Your task to perform on an android device: Go to internet settings Image 0: 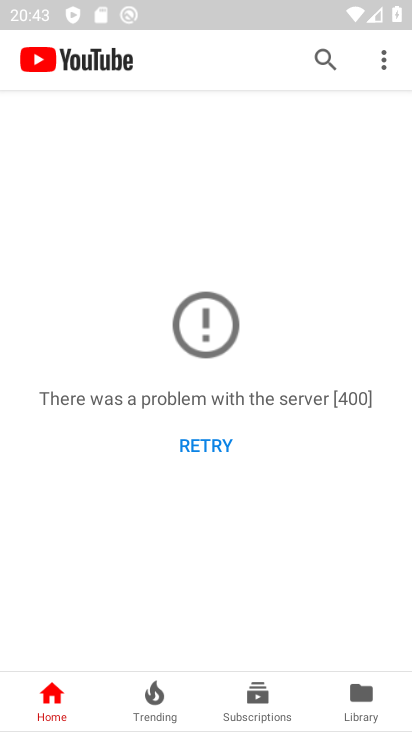
Step 0: press back button
Your task to perform on an android device: Go to internet settings Image 1: 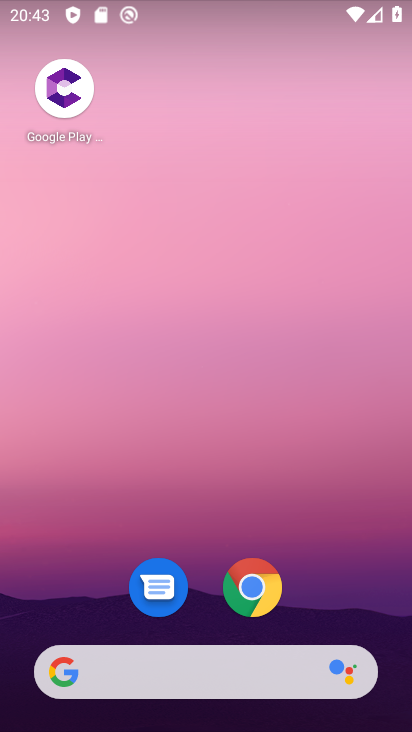
Step 1: drag from (306, 577) to (195, 1)
Your task to perform on an android device: Go to internet settings Image 2: 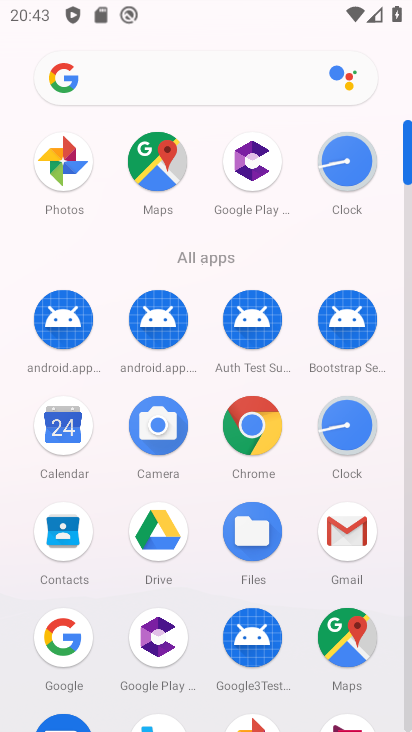
Step 2: drag from (10, 511) to (9, 200)
Your task to perform on an android device: Go to internet settings Image 3: 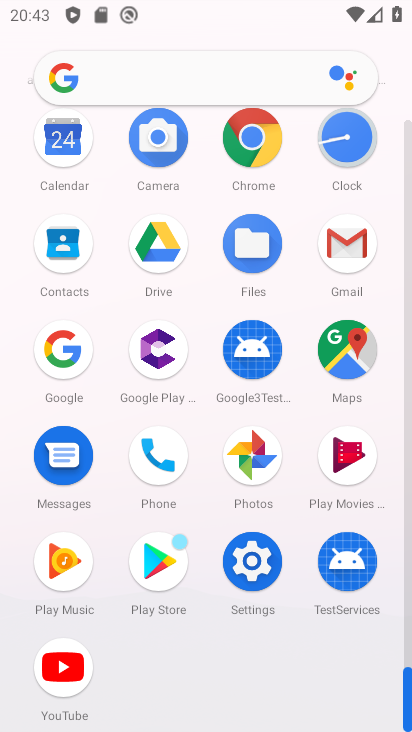
Step 3: click (251, 556)
Your task to perform on an android device: Go to internet settings Image 4: 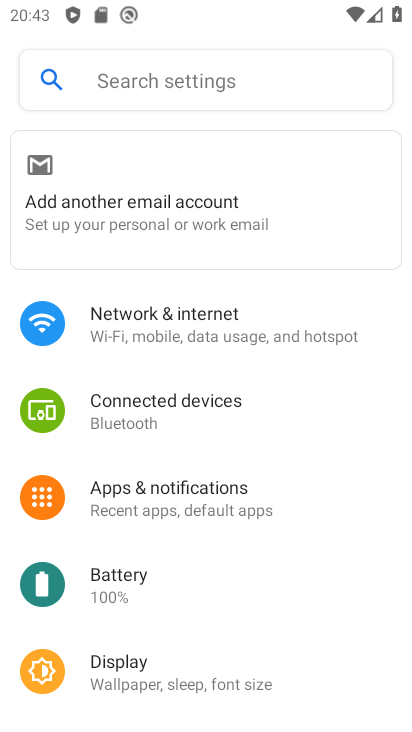
Step 4: click (227, 327)
Your task to perform on an android device: Go to internet settings Image 5: 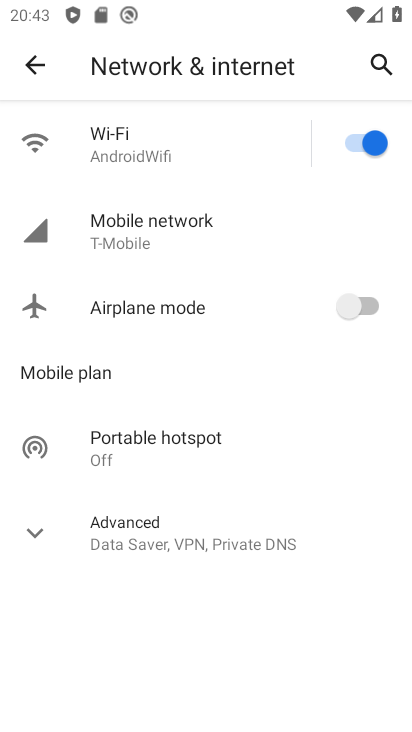
Step 5: click (31, 535)
Your task to perform on an android device: Go to internet settings Image 6: 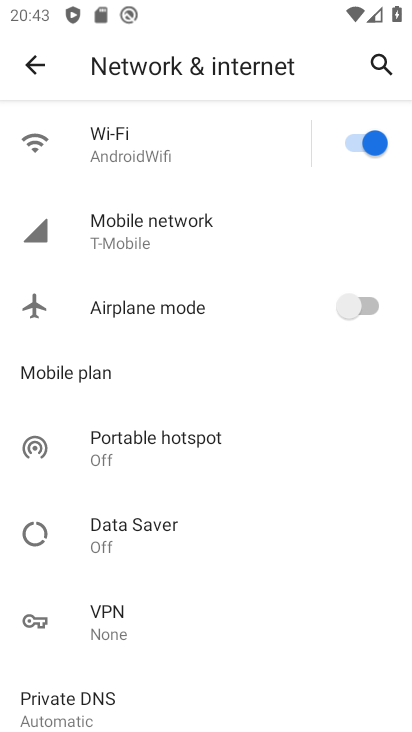
Step 6: task complete